Your task to perform on an android device: Go to notification settings Image 0: 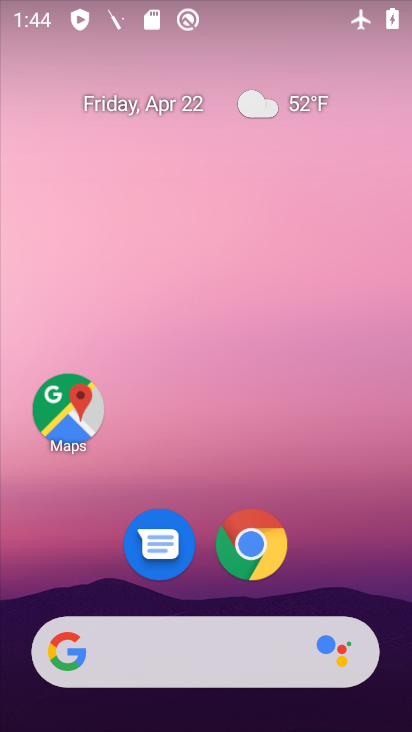
Step 0: drag from (254, 13) to (292, 564)
Your task to perform on an android device: Go to notification settings Image 1: 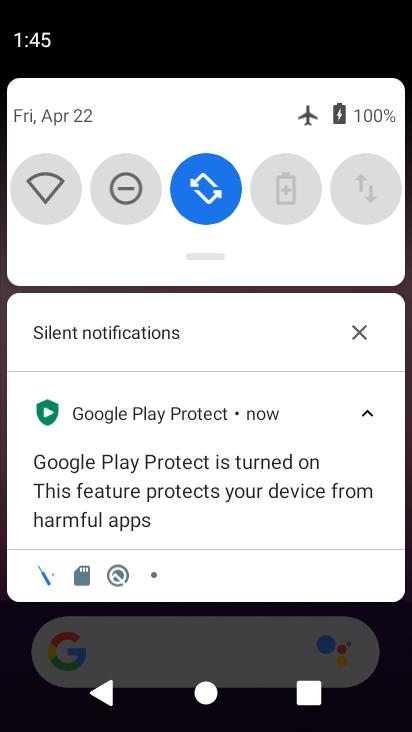
Step 1: drag from (350, 622) to (347, 34)
Your task to perform on an android device: Go to notification settings Image 2: 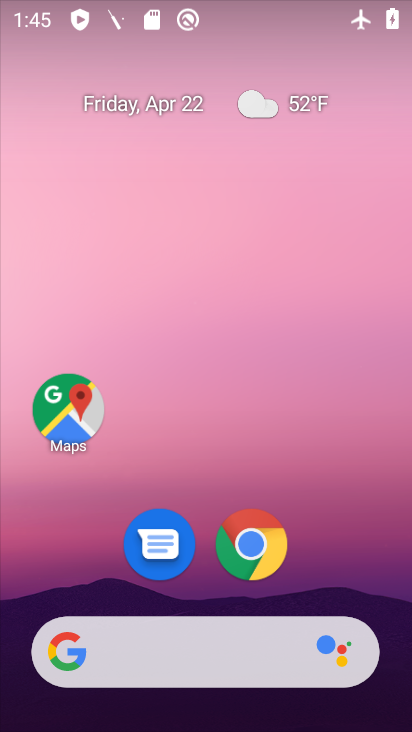
Step 2: drag from (321, 607) to (314, 122)
Your task to perform on an android device: Go to notification settings Image 3: 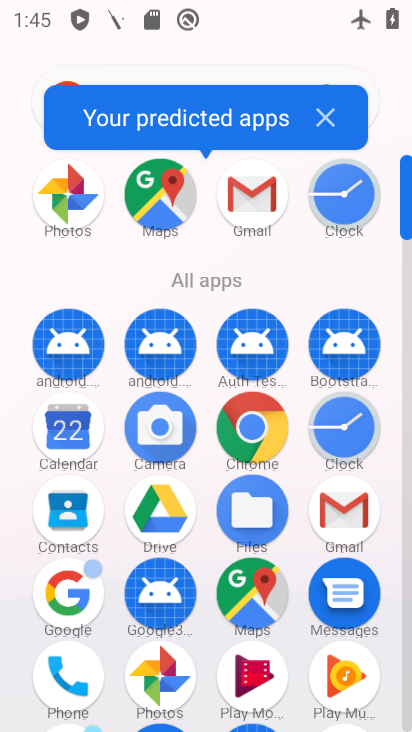
Step 3: drag from (298, 594) to (315, 267)
Your task to perform on an android device: Go to notification settings Image 4: 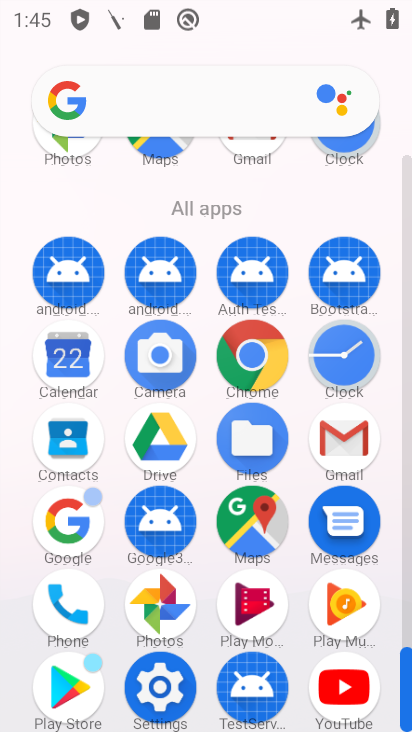
Step 4: click (163, 700)
Your task to perform on an android device: Go to notification settings Image 5: 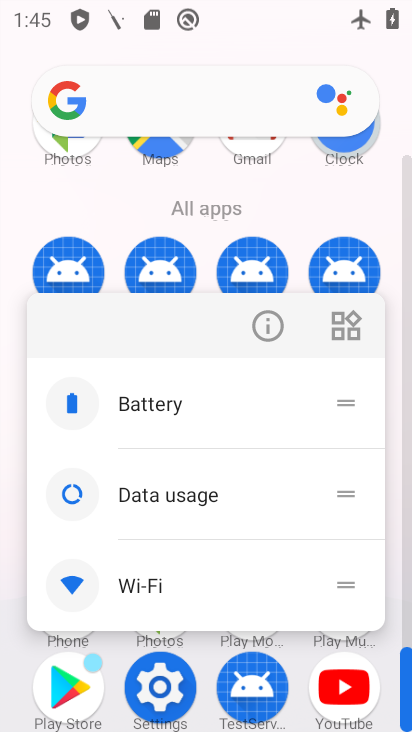
Step 5: click (163, 700)
Your task to perform on an android device: Go to notification settings Image 6: 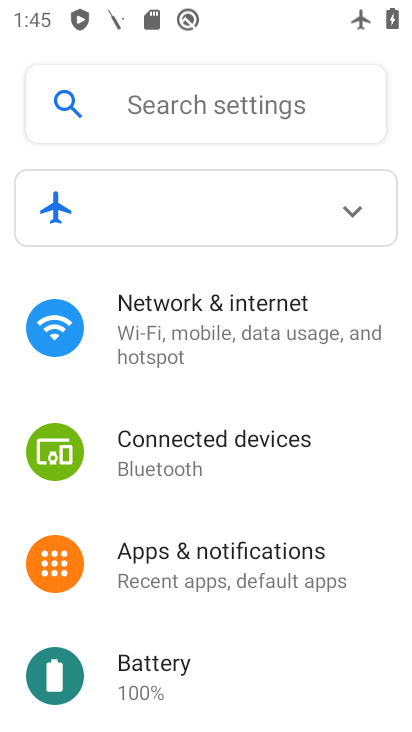
Step 6: drag from (282, 634) to (316, 222)
Your task to perform on an android device: Go to notification settings Image 7: 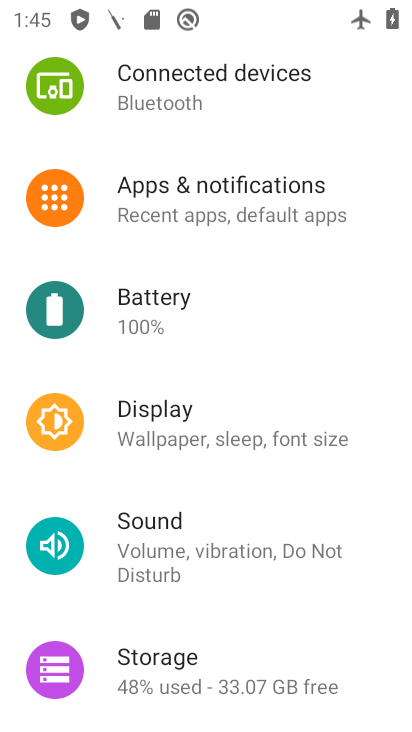
Step 7: click (273, 200)
Your task to perform on an android device: Go to notification settings Image 8: 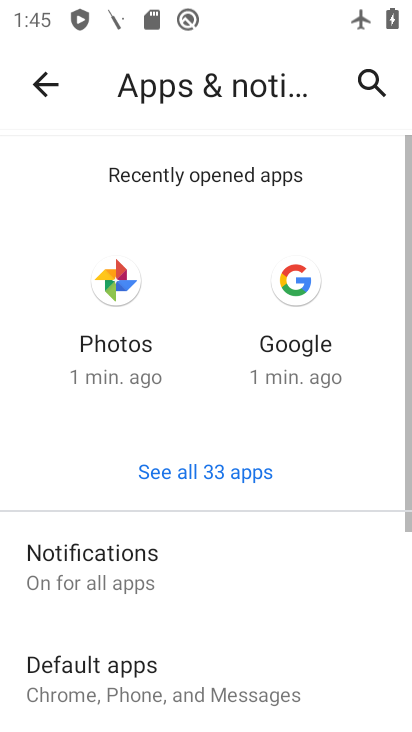
Step 8: click (183, 542)
Your task to perform on an android device: Go to notification settings Image 9: 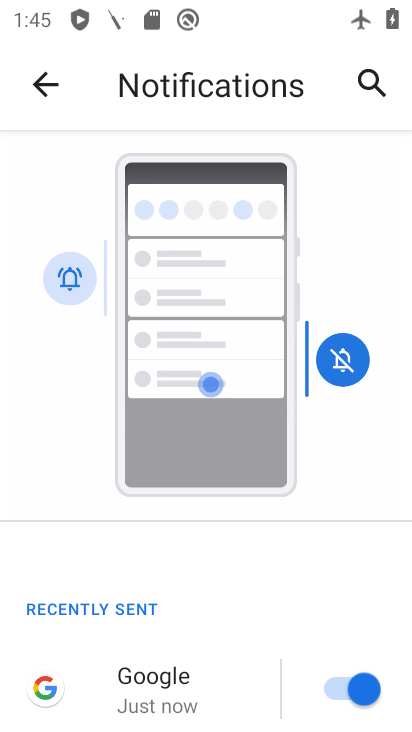
Step 9: task complete